Your task to perform on an android device: check the backup settings in the google photos Image 0: 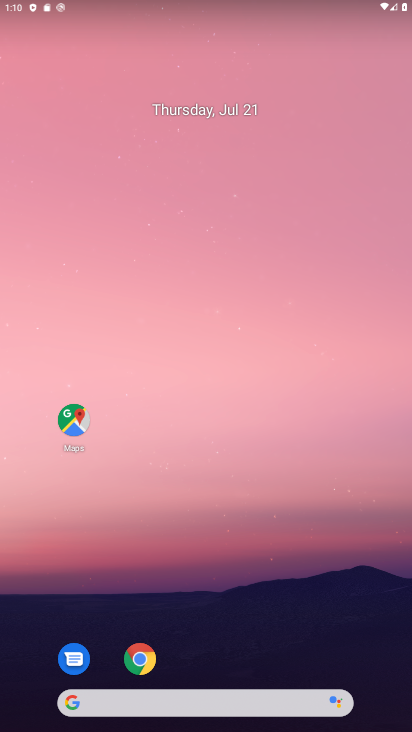
Step 0: drag from (278, 633) to (250, 154)
Your task to perform on an android device: check the backup settings in the google photos Image 1: 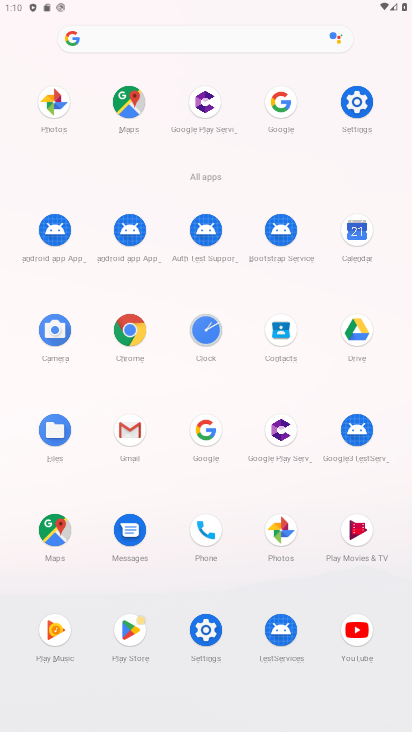
Step 1: click (269, 532)
Your task to perform on an android device: check the backup settings in the google photos Image 2: 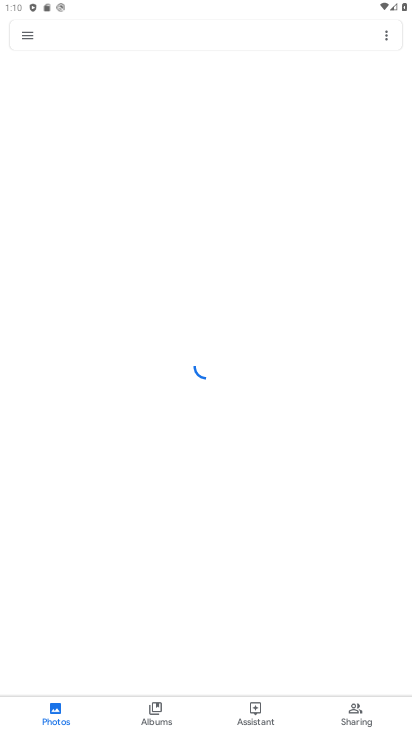
Step 2: click (29, 37)
Your task to perform on an android device: check the backup settings in the google photos Image 3: 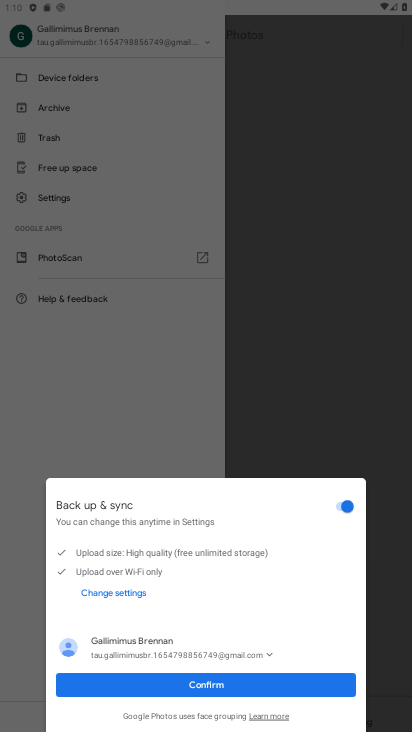
Step 3: click (173, 691)
Your task to perform on an android device: check the backup settings in the google photos Image 4: 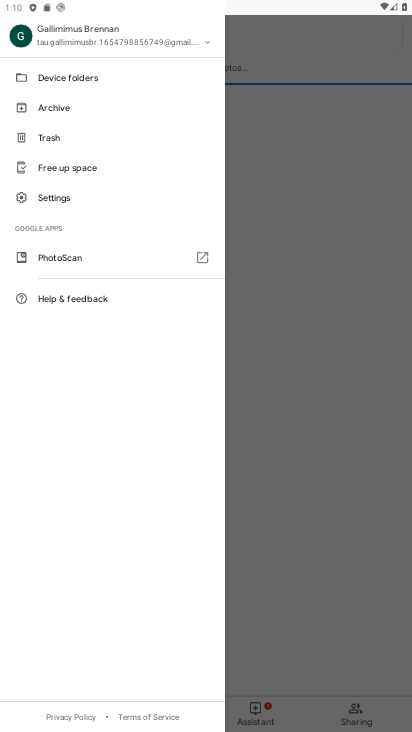
Step 4: click (57, 207)
Your task to perform on an android device: check the backup settings in the google photos Image 5: 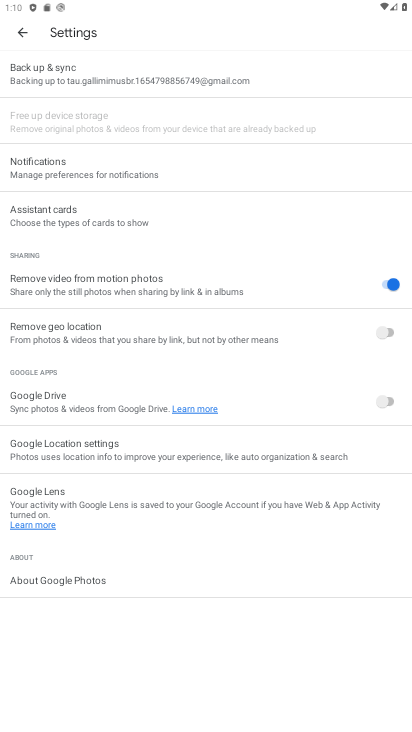
Step 5: click (48, 67)
Your task to perform on an android device: check the backup settings in the google photos Image 6: 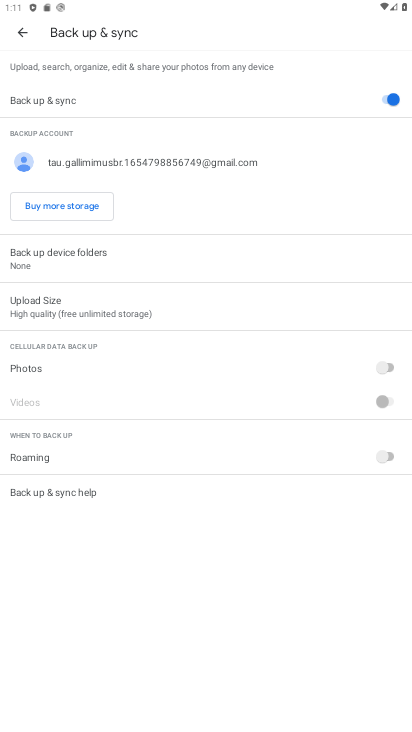
Step 6: task complete